Your task to perform on an android device: delete location history Image 0: 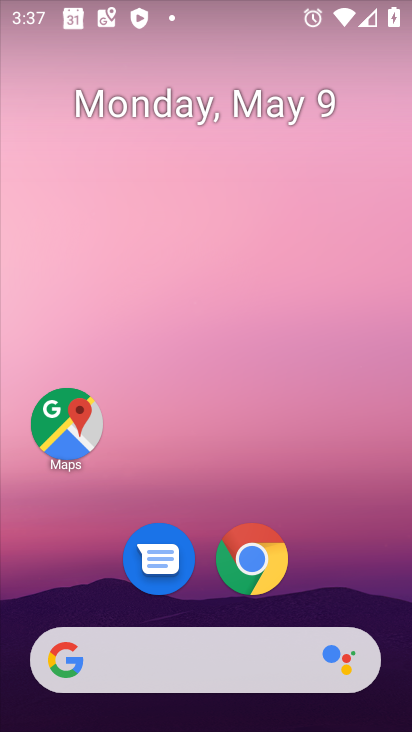
Step 0: drag from (200, 729) to (198, 199)
Your task to perform on an android device: delete location history Image 1: 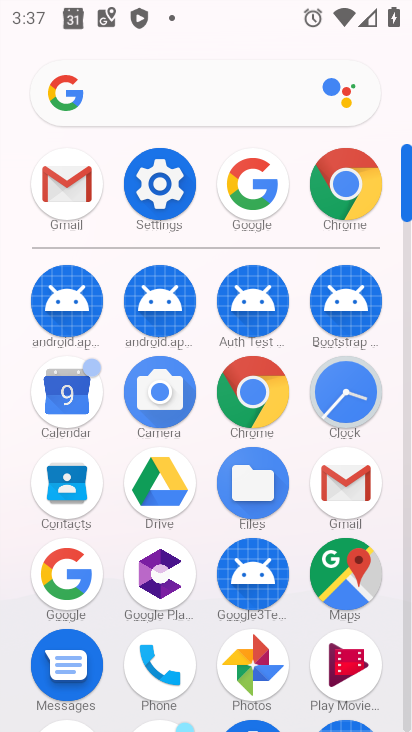
Step 1: click (351, 570)
Your task to perform on an android device: delete location history Image 2: 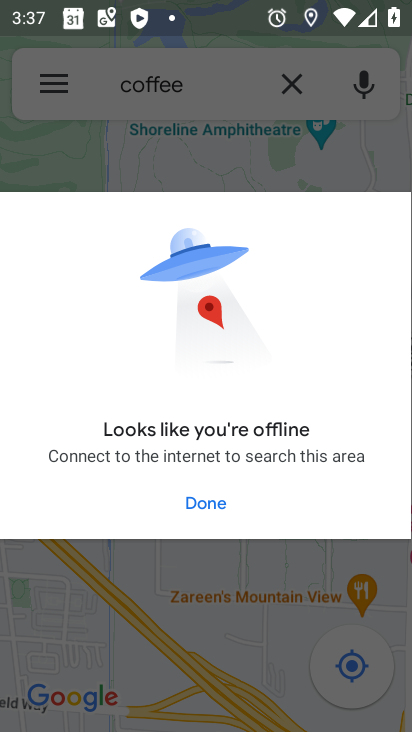
Step 2: click (203, 498)
Your task to perform on an android device: delete location history Image 3: 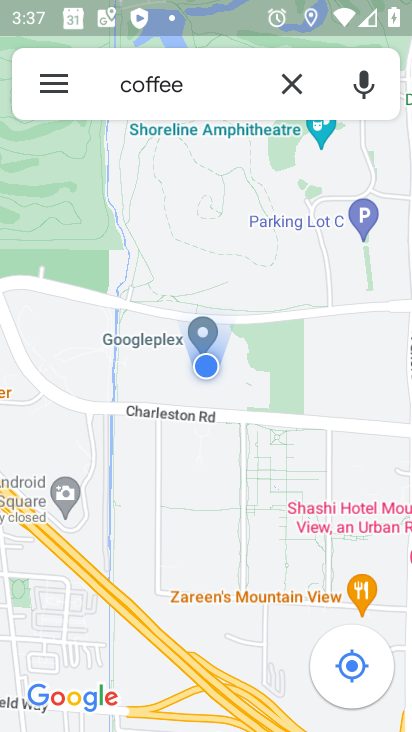
Step 3: click (47, 87)
Your task to perform on an android device: delete location history Image 4: 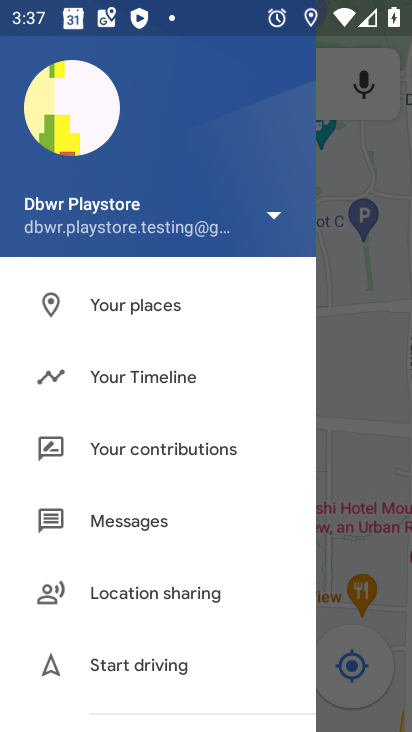
Step 4: click (121, 373)
Your task to perform on an android device: delete location history Image 5: 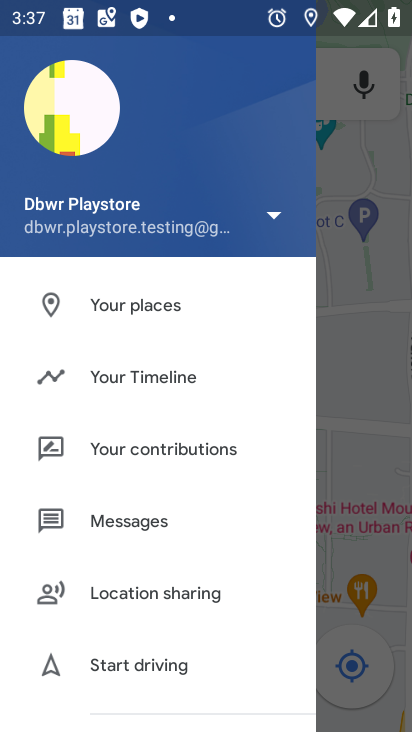
Step 5: click (121, 373)
Your task to perform on an android device: delete location history Image 6: 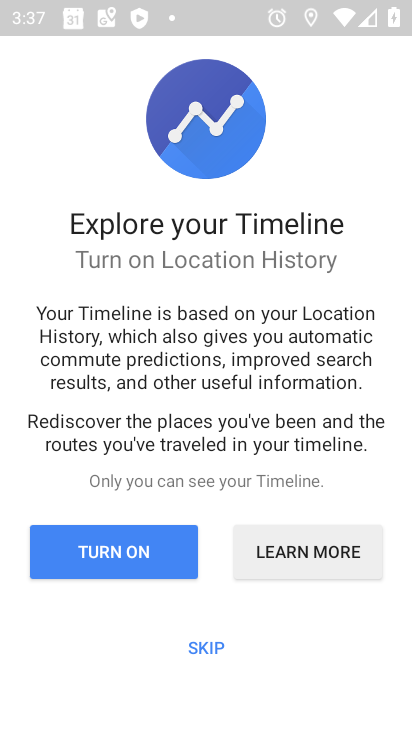
Step 6: click (209, 640)
Your task to perform on an android device: delete location history Image 7: 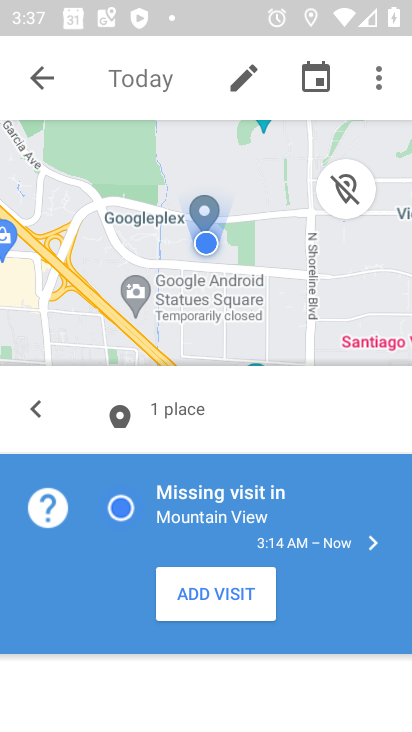
Step 7: click (378, 86)
Your task to perform on an android device: delete location history Image 8: 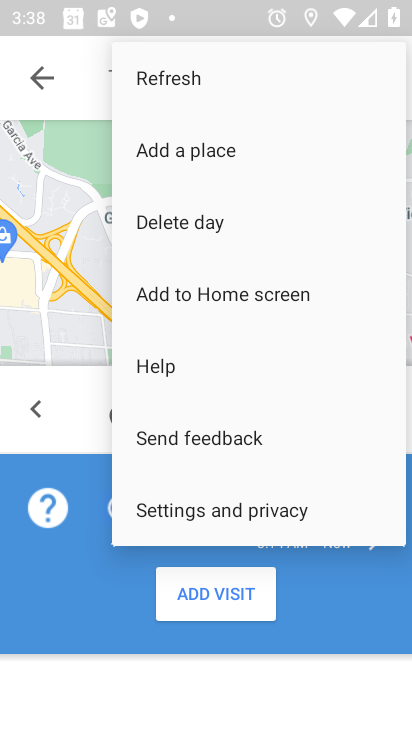
Step 8: click (185, 508)
Your task to perform on an android device: delete location history Image 9: 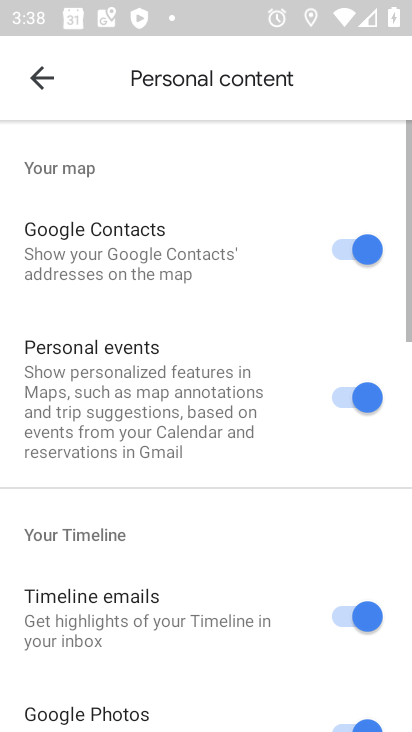
Step 9: drag from (188, 658) to (197, 237)
Your task to perform on an android device: delete location history Image 10: 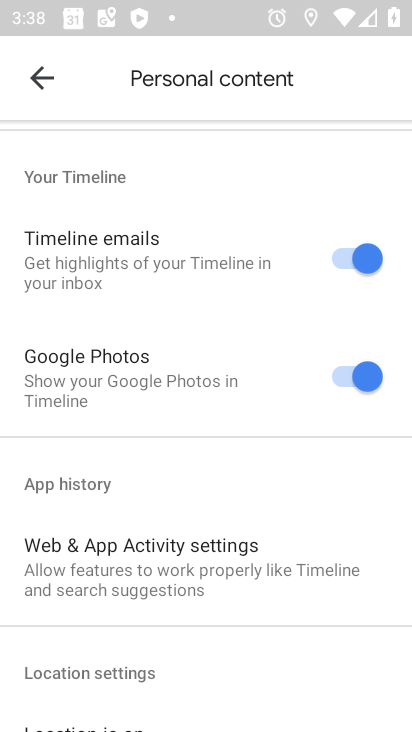
Step 10: drag from (182, 685) to (189, 207)
Your task to perform on an android device: delete location history Image 11: 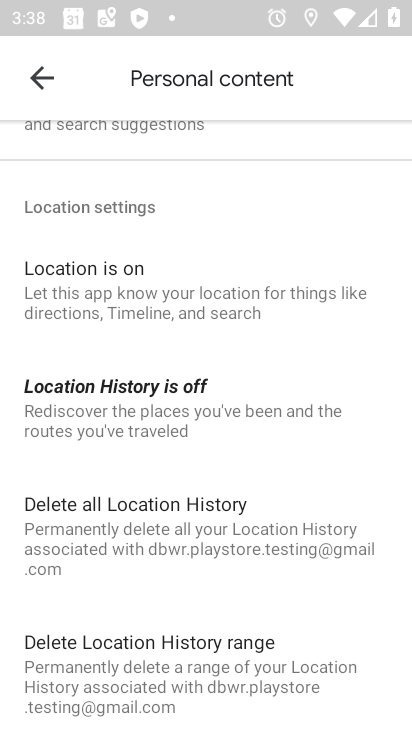
Step 11: drag from (183, 659) to (185, 219)
Your task to perform on an android device: delete location history Image 12: 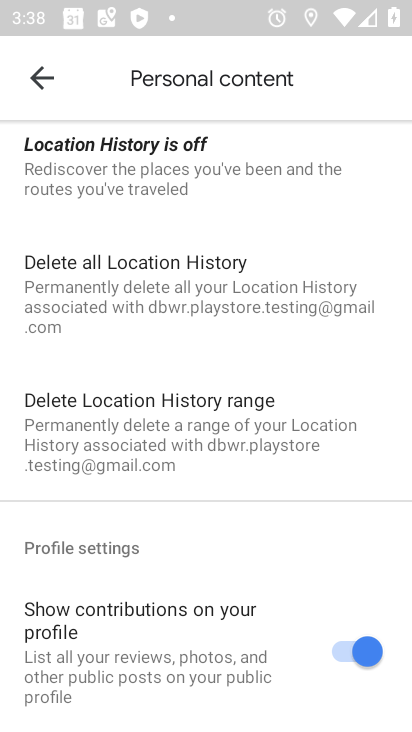
Step 12: drag from (172, 671) to (172, 214)
Your task to perform on an android device: delete location history Image 13: 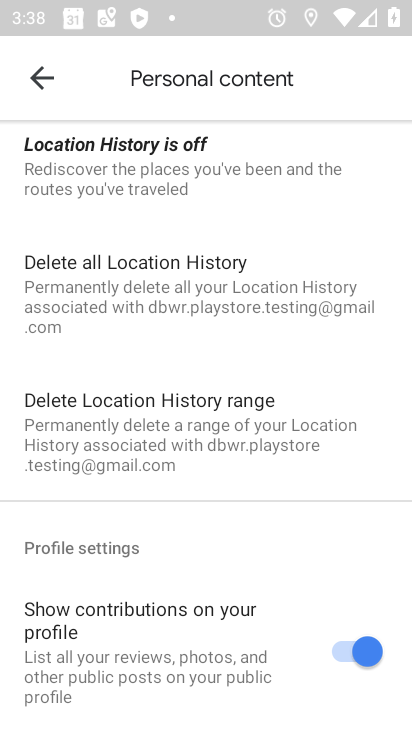
Step 13: click (175, 285)
Your task to perform on an android device: delete location history Image 14: 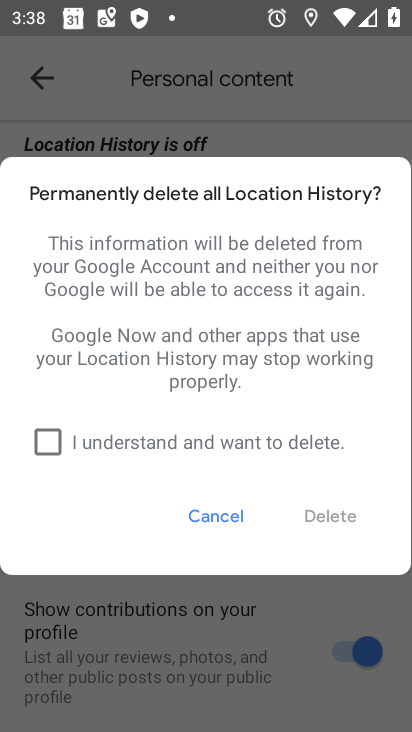
Step 14: click (55, 440)
Your task to perform on an android device: delete location history Image 15: 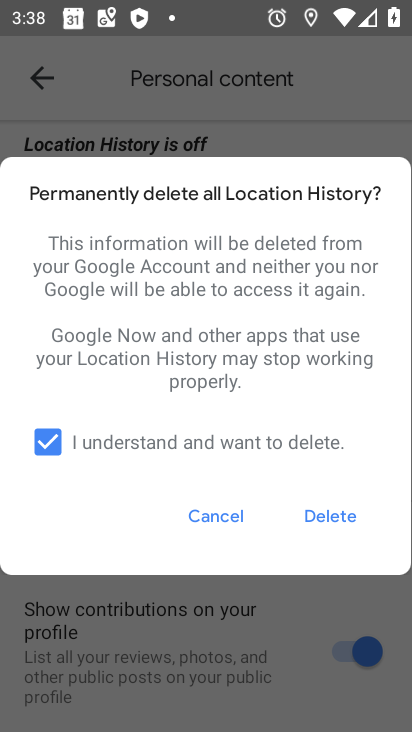
Step 15: click (329, 513)
Your task to perform on an android device: delete location history Image 16: 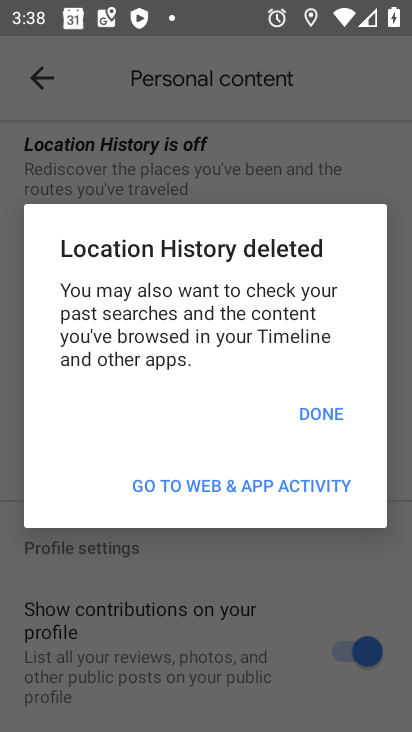
Step 16: click (326, 409)
Your task to perform on an android device: delete location history Image 17: 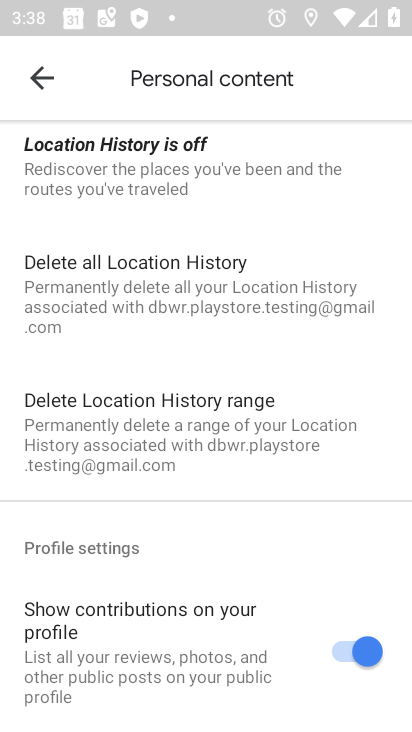
Step 17: task complete